Your task to perform on an android device: uninstall "HBO Max: Stream TV & Movies" Image 0: 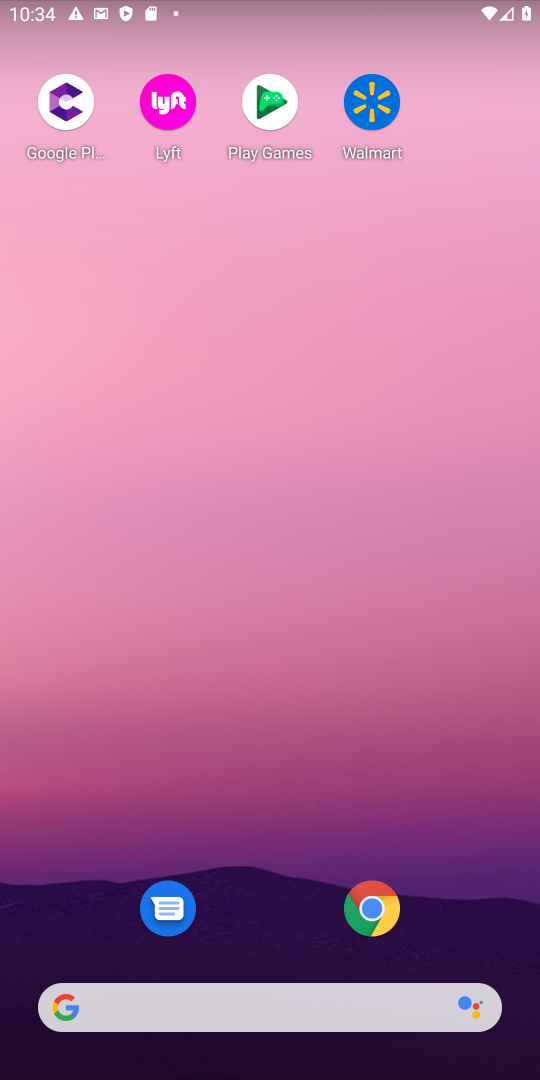
Step 0: drag from (297, 690) to (334, 171)
Your task to perform on an android device: uninstall "HBO Max: Stream TV & Movies" Image 1: 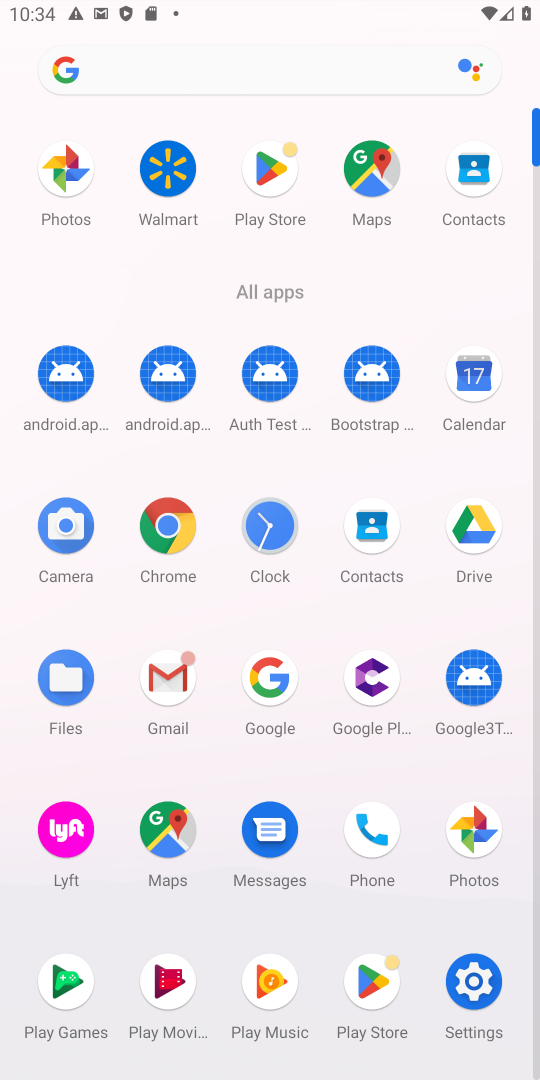
Step 1: click (270, 185)
Your task to perform on an android device: uninstall "HBO Max: Stream TV & Movies" Image 2: 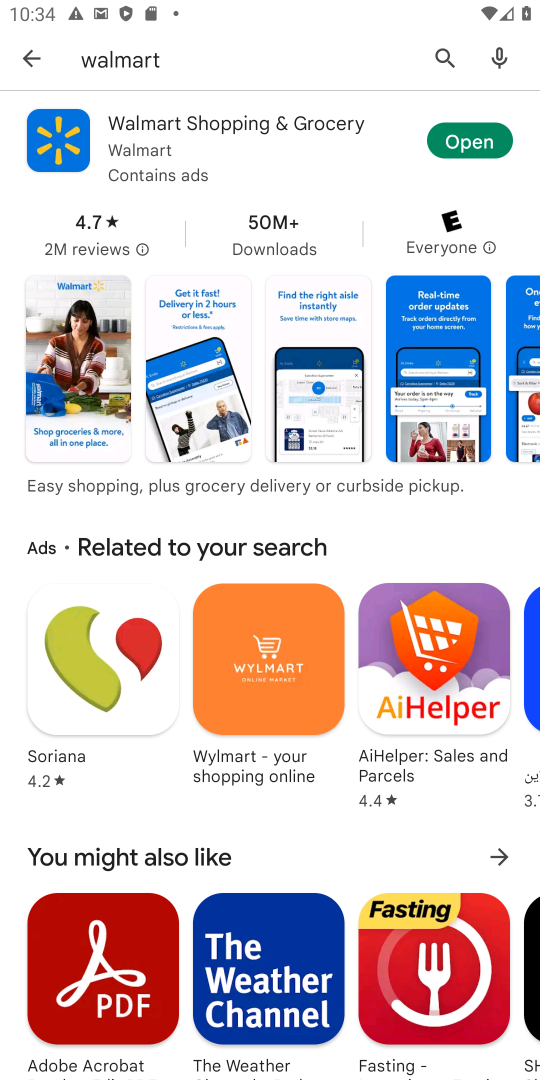
Step 2: click (443, 53)
Your task to perform on an android device: uninstall "HBO Max: Stream TV & Movies" Image 3: 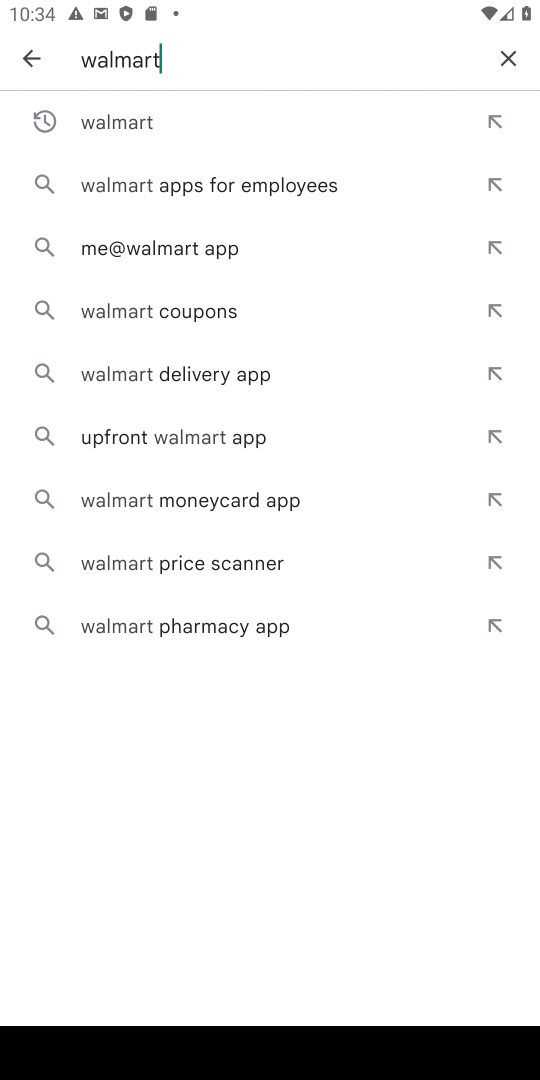
Step 3: click (509, 60)
Your task to perform on an android device: uninstall "HBO Max: Stream TV & Movies" Image 4: 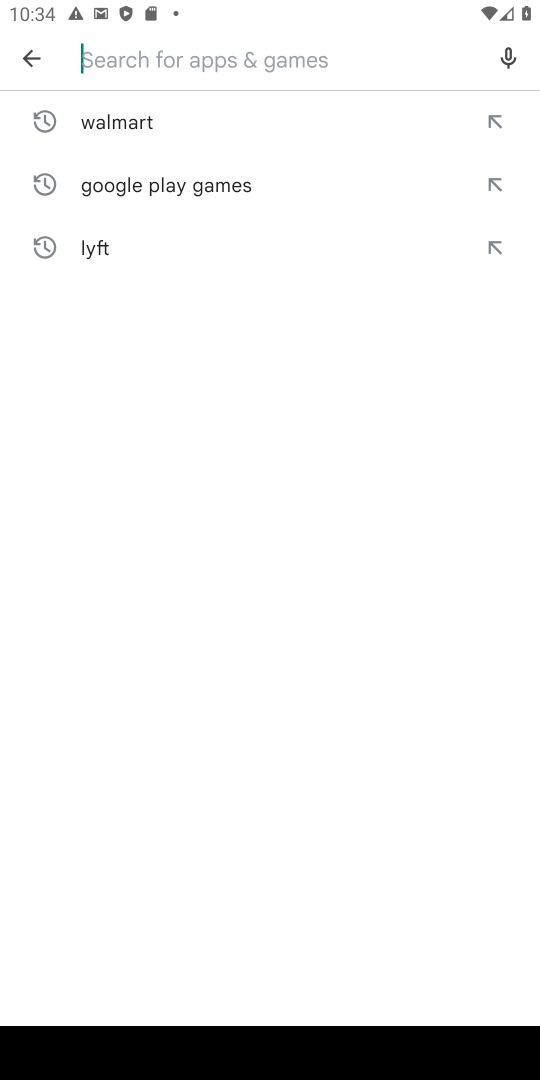
Step 4: click (162, 66)
Your task to perform on an android device: uninstall "HBO Max: Stream TV & Movies" Image 5: 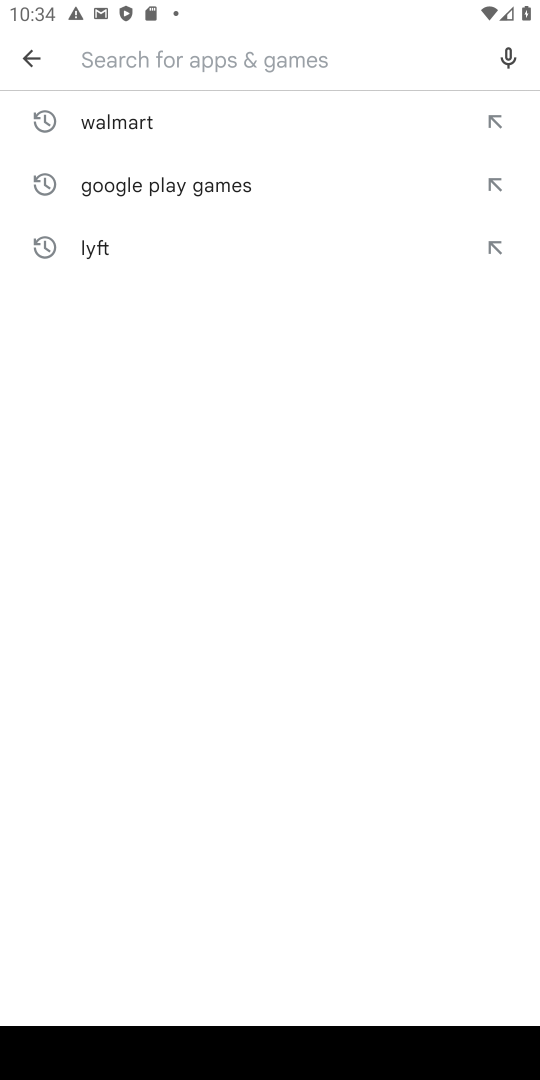
Step 5: type "hbo"
Your task to perform on an android device: uninstall "HBO Max: Stream TV & Movies" Image 6: 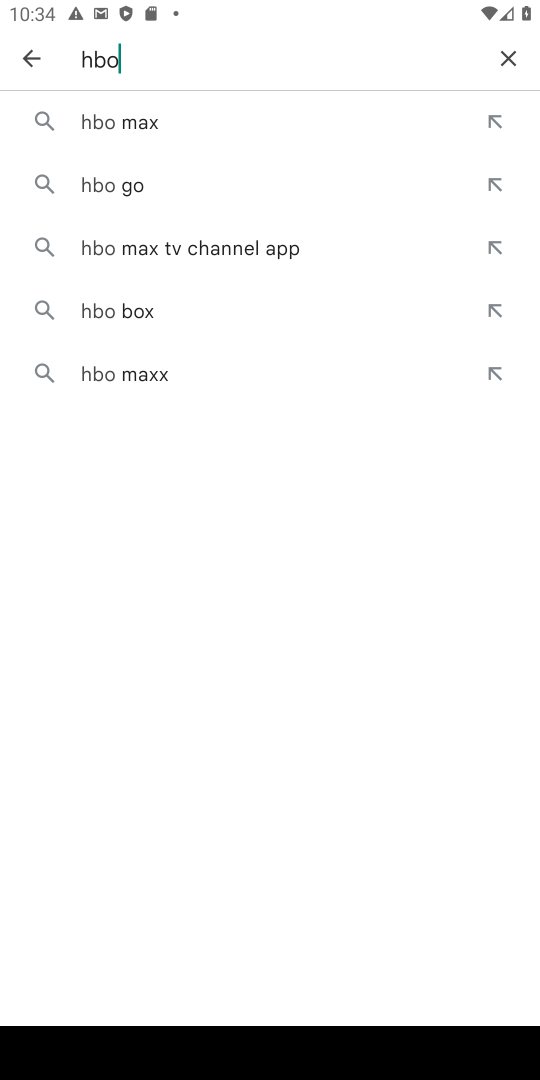
Step 6: click (181, 127)
Your task to perform on an android device: uninstall "HBO Max: Stream TV & Movies" Image 7: 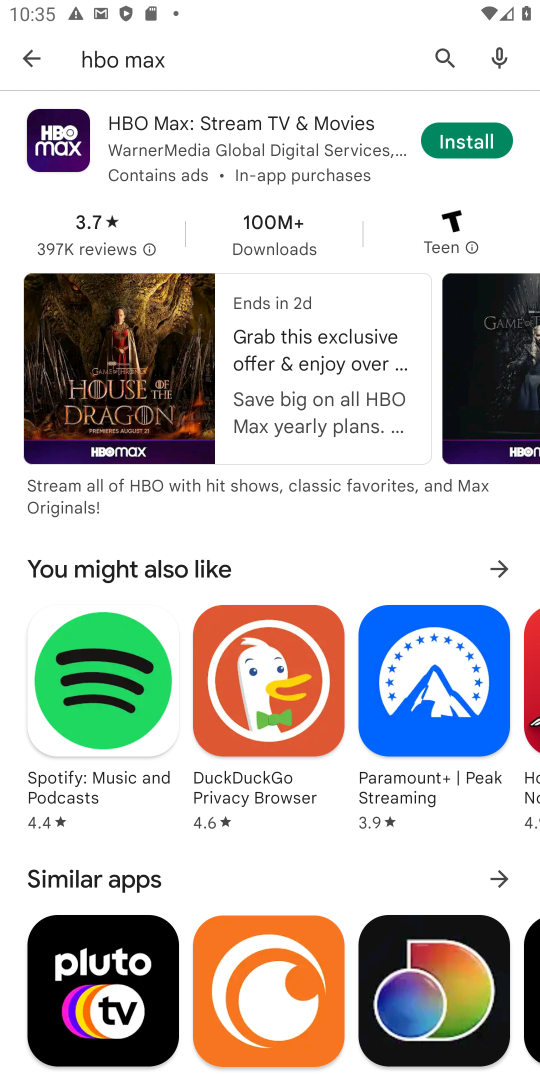
Step 7: task complete